Your task to perform on an android device: turn off airplane mode Image 0: 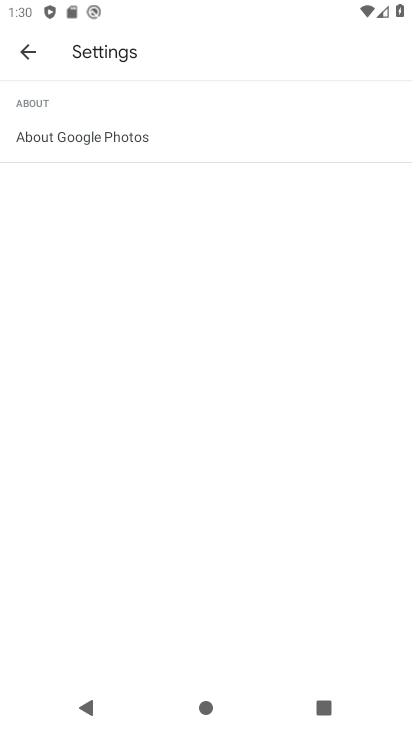
Step 0: press home button
Your task to perform on an android device: turn off airplane mode Image 1: 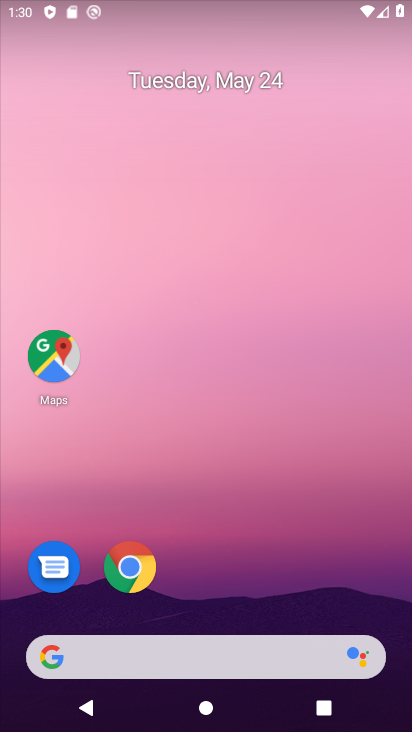
Step 1: drag from (192, 621) to (247, 20)
Your task to perform on an android device: turn off airplane mode Image 2: 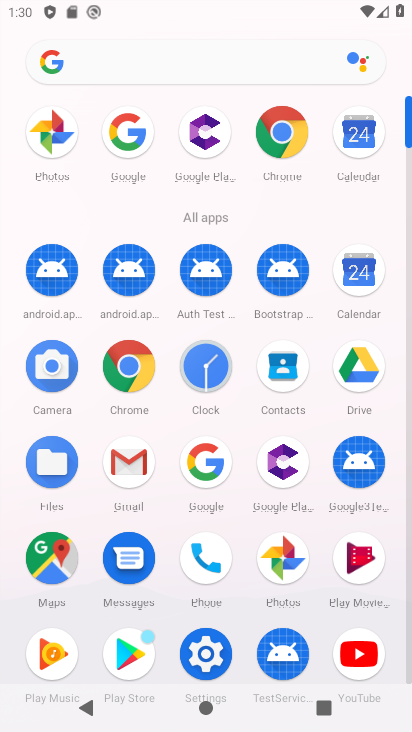
Step 2: click (199, 652)
Your task to perform on an android device: turn off airplane mode Image 3: 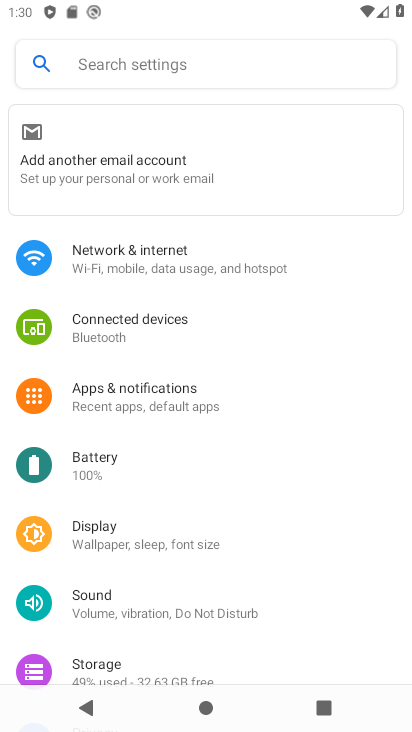
Step 3: click (304, 280)
Your task to perform on an android device: turn off airplane mode Image 4: 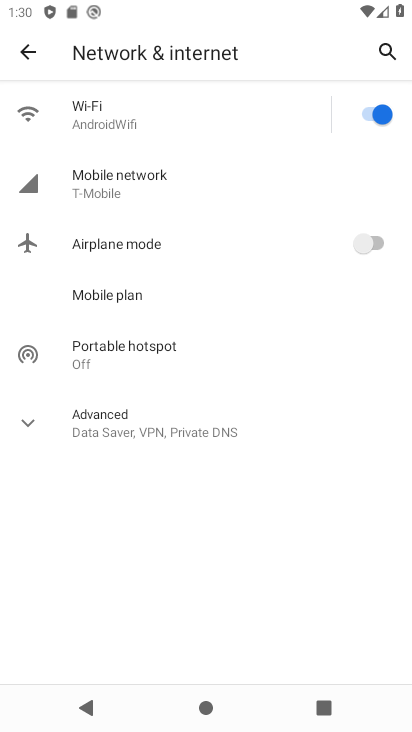
Step 4: task complete